Your task to perform on an android device: toggle improve location accuracy Image 0: 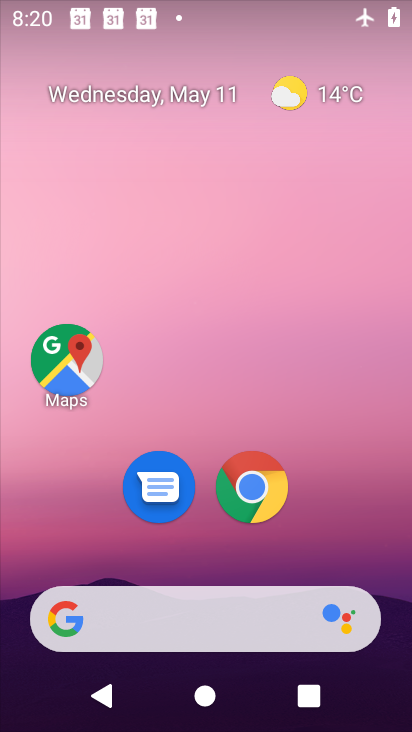
Step 0: drag from (225, 728) to (236, 19)
Your task to perform on an android device: toggle improve location accuracy Image 1: 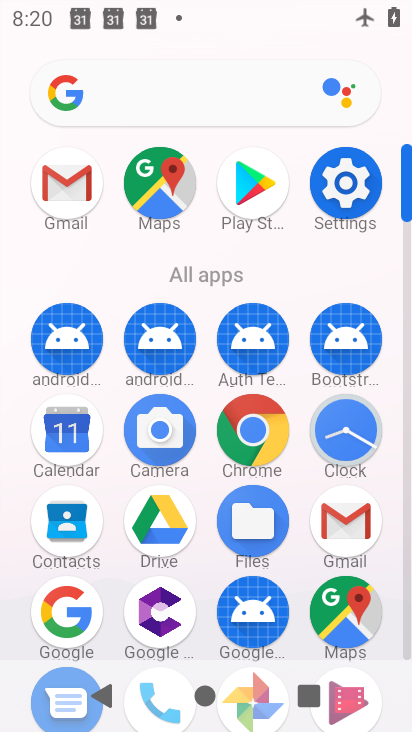
Step 1: click (349, 181)
Your task to perform on an android device: toggle improve location accuracy Image 2: 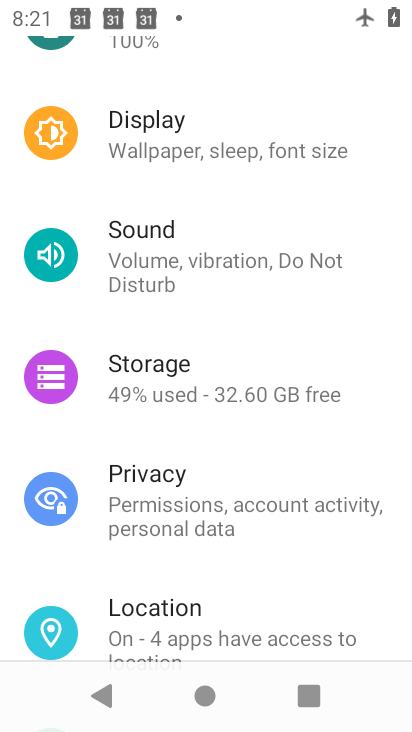
Step 2: click (155, 604)
Your task to perform on an android device: toggle improve location accuracy Image 3: 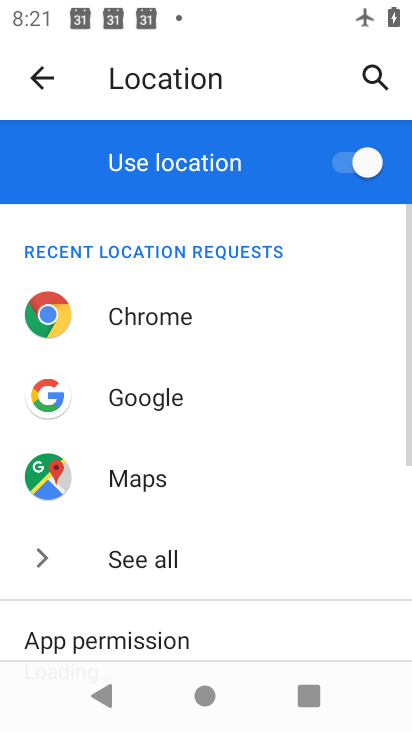
Step 3: drag from (191, 624) to (192, 243)
Your task to perform on an android device: toggle improve location accuracy Image 4: 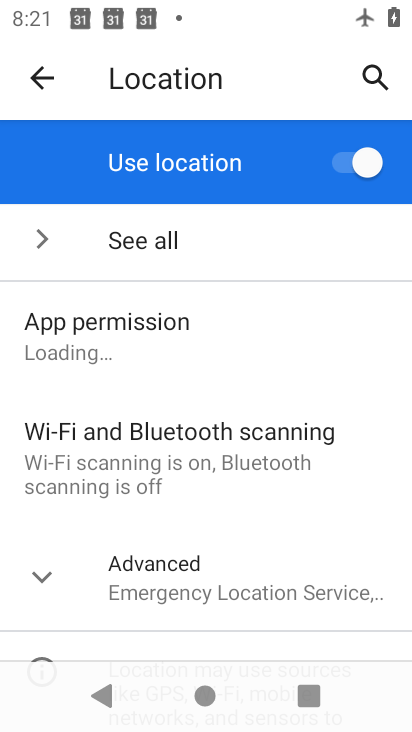
Step 4: click (204, 583)
Your task to perform on an android device: toggle improve location accuracy Image 5: 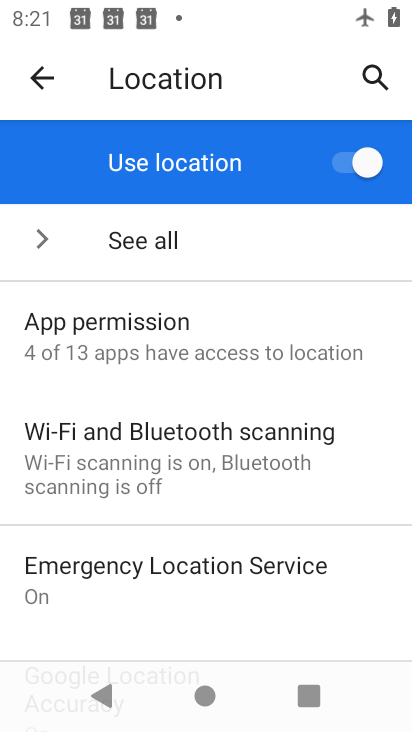
Step 5: drag from (199, 608) to (199, 332)
Your task to perform on an android device: toggle improve location accuracy Image 6: 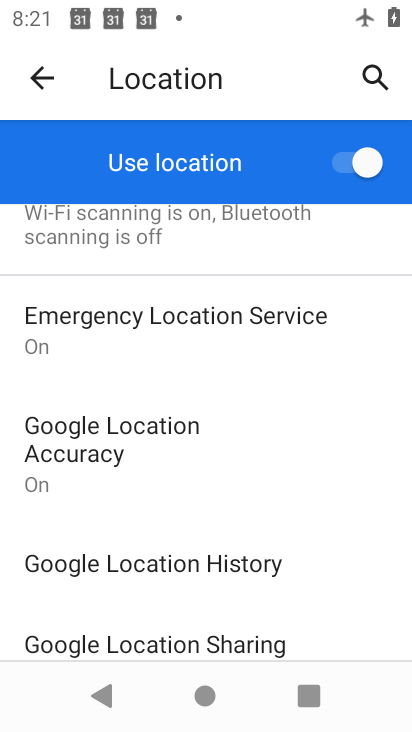
Step 6: click (111, 428)
Your task to perform on an android device: toggle improve location accuracy Image 7: 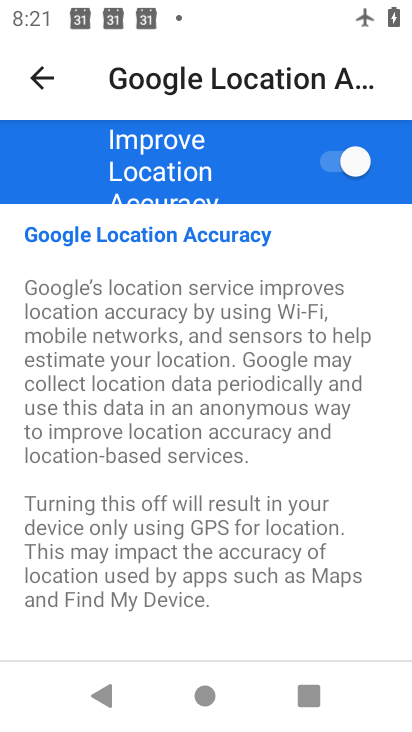
Step 7: click (327, 154)
Your task to perform on an android device: toggle improve location accuracy Image 8: 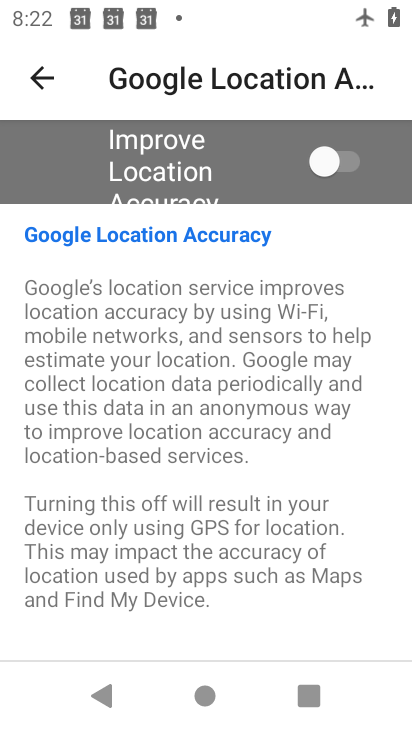
Step 8: task complete